Your task to perform on an android device: check android version Image 0: 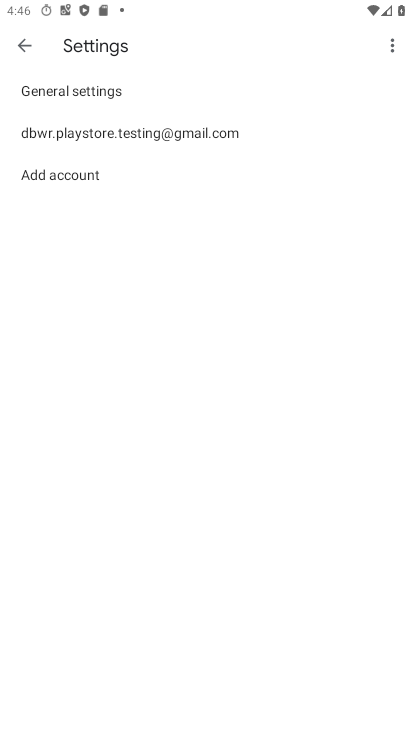
Step 0: press back button
Your task to perform on an android device: check android version Image 1: 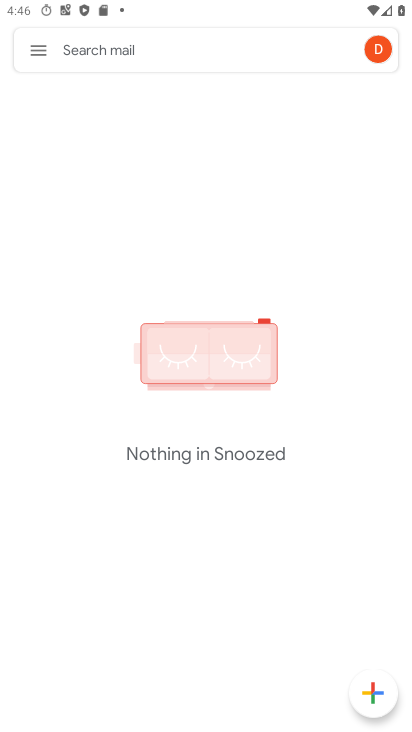
Step 1: press back button
Your task to perform on an android device: check android version Image 2: 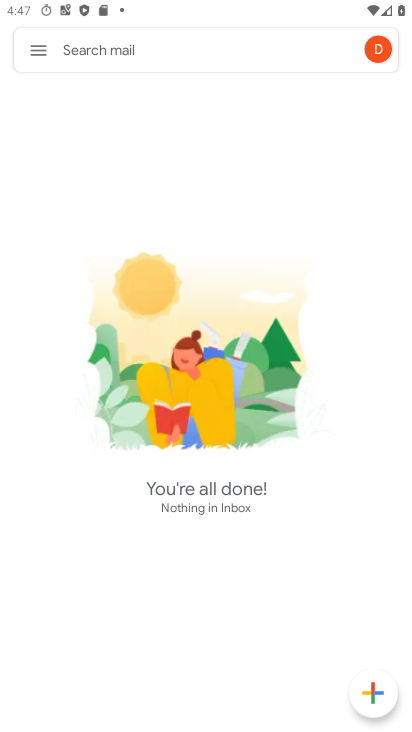
Step 2: press back button
Your task to perform on an android device: check android version Image 3: 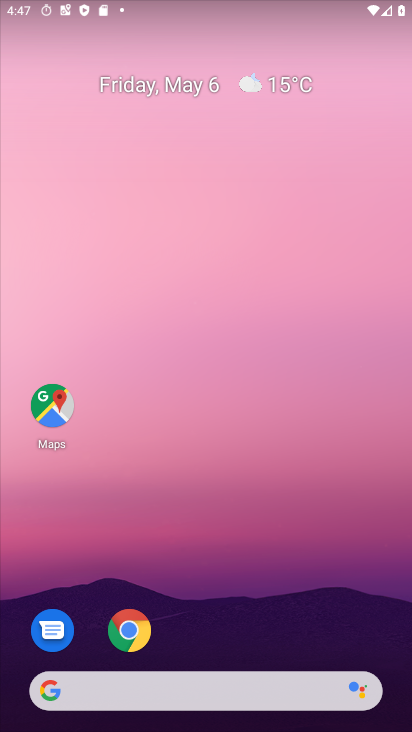
Step 3: drag from (264, 553) to (322, 87)
Your task to perform on an android device: check android version Image 4: 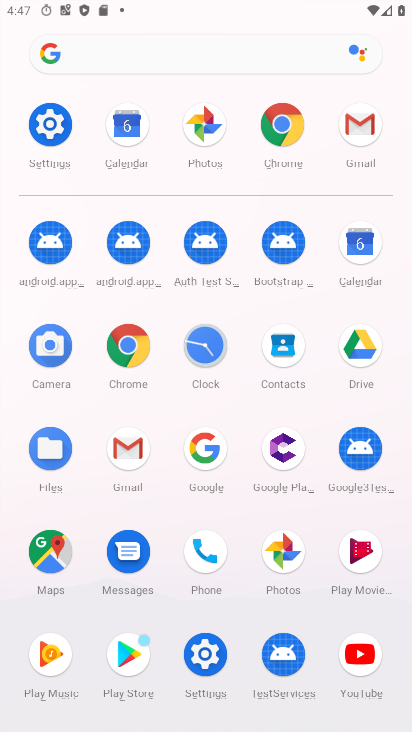
Step 4: click (49, 116)
Your task to perform on an android device: check android version Image 5: 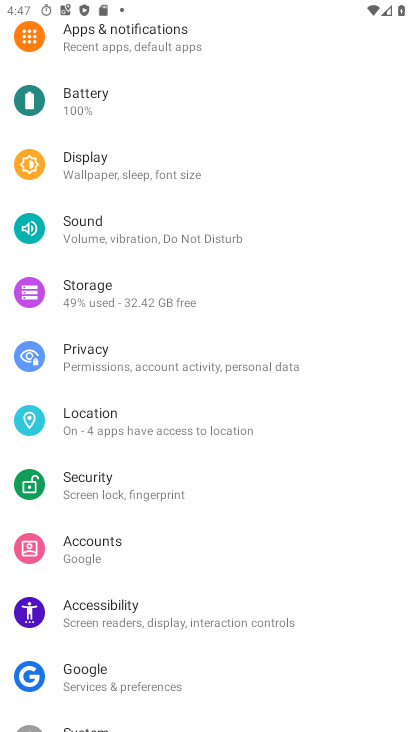
Step 5: drag from (202, 663) to (296, 38)
Your task to perform on an android device: check android version Image 6: 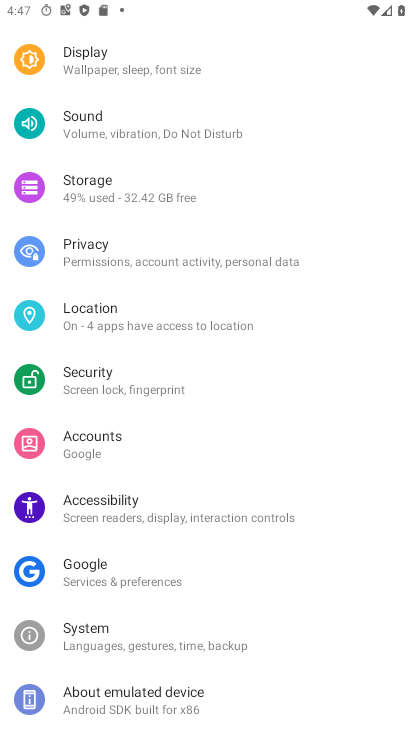
Step 6: click (179, 701)
Your task to perform on an android device: check android version Image 7: 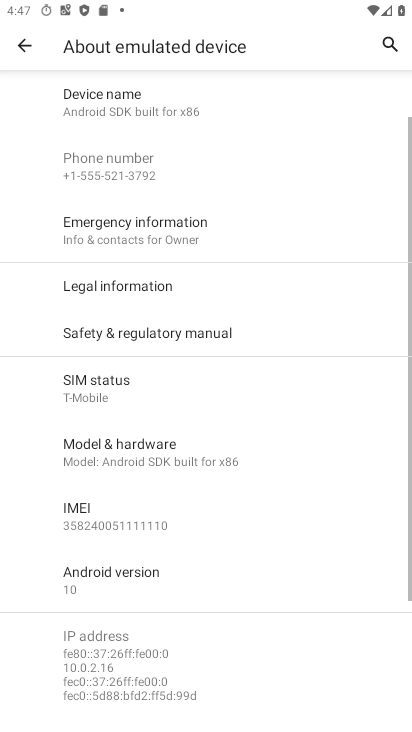
Step 7: click (101, 583)
Your task to perform on an android device: check android version Image 8: 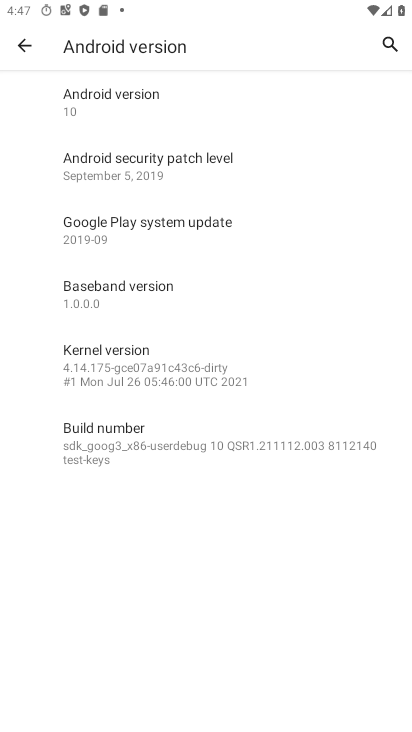
Step 8: click (91, 113)
Your task to perform on an android device: check android version Image 9: 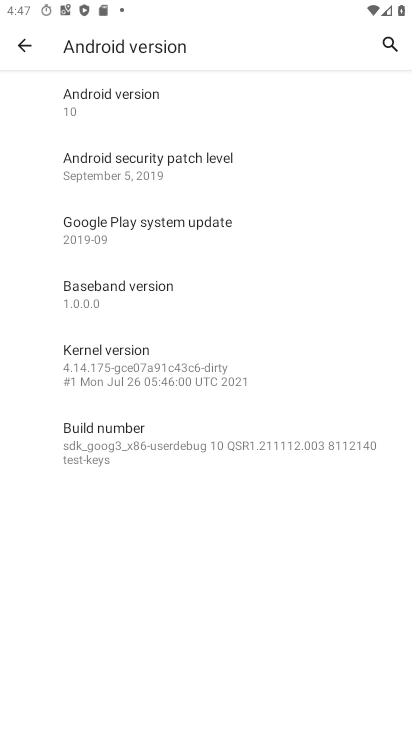
Step 9: task complete